Your task to perform on an android device: Open calendar and show me the second week of next month Image 0: 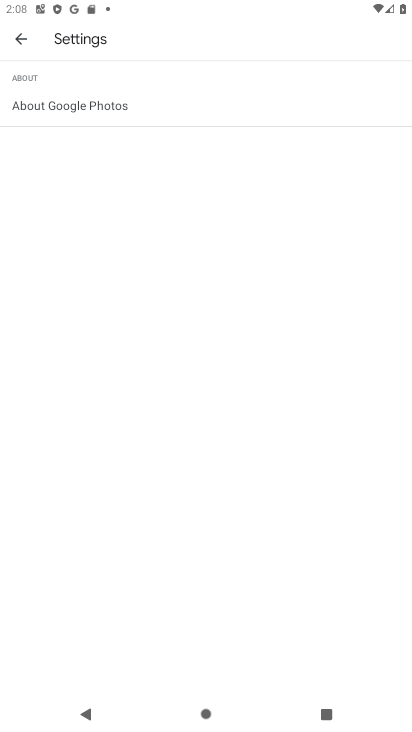
Step 0: press home button
Your task to perform on an android device: Open calendar and show me the second week of next month Image 1: 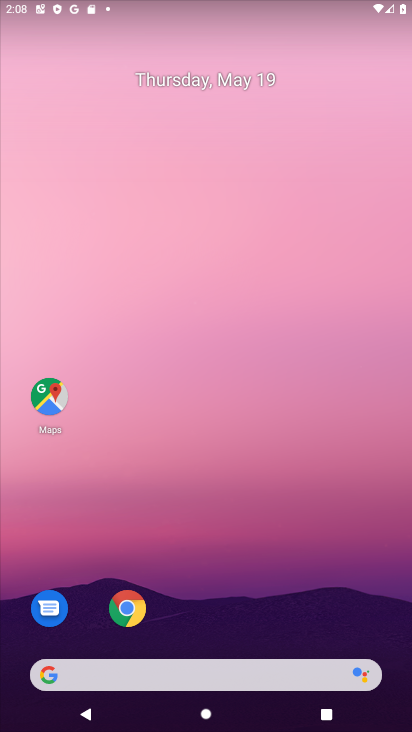
Step 1: drag from (207, 622) to (212, 271)
Your task to perform on an android device: Open calendar and show me the second week of next month Image 2: 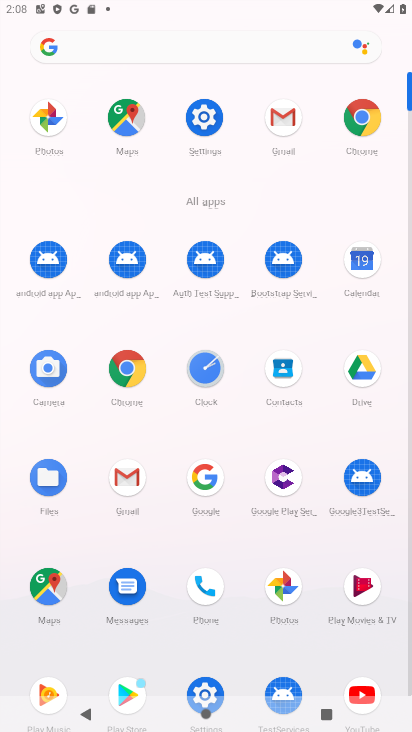
Step 2: click (362, 262)
Your task to perform on an android device: Open calendar and show me the second week of next month Image 3: 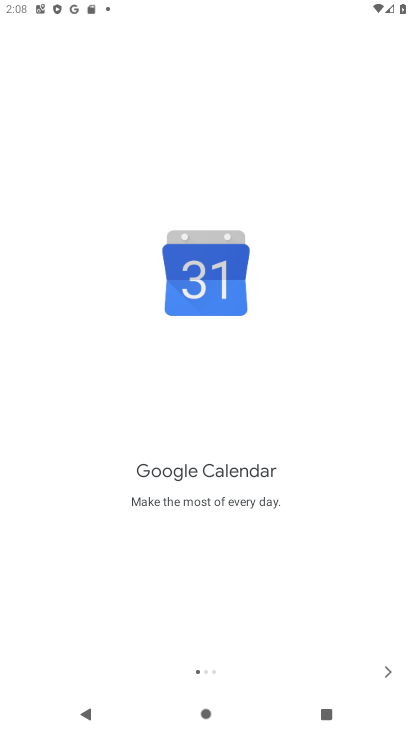
Step 3: click (378, 664)
Your task to perform on an android device: Open calendar and show me the second week of next month Image 4: 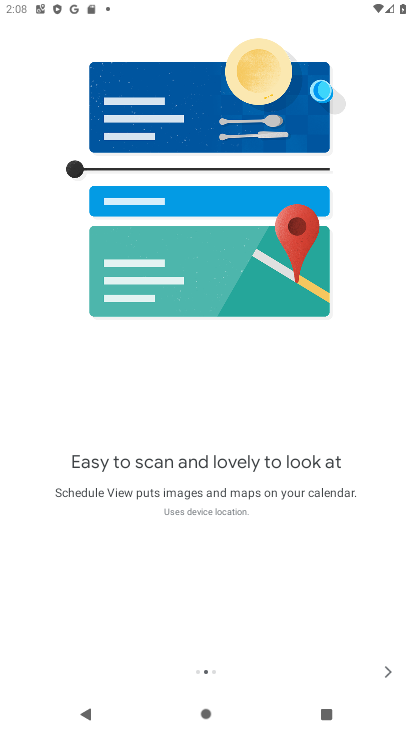
Step 4: click (378, 664)
Your task to perform on an android device: Open calendar and show me the second week of next month Image 5: 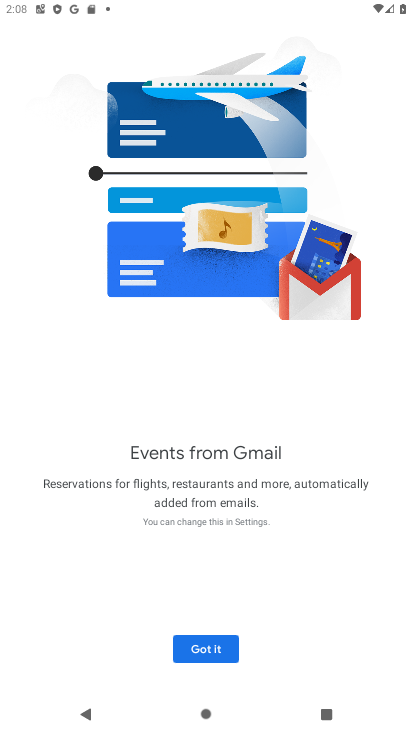
Step 5: click (204, 655)
Your task to perform on an android device: Open calendar and show me the second week of next month Image 6: 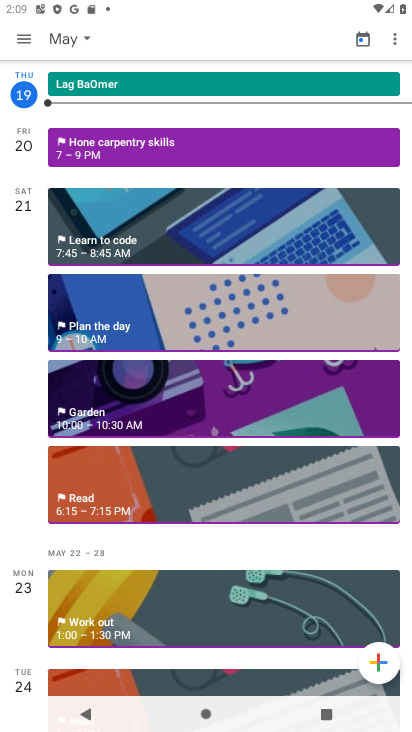
Step 6: click (69, 31)
Your task to perform on an android device: Open calendar and show me the second week of next month Image 7: 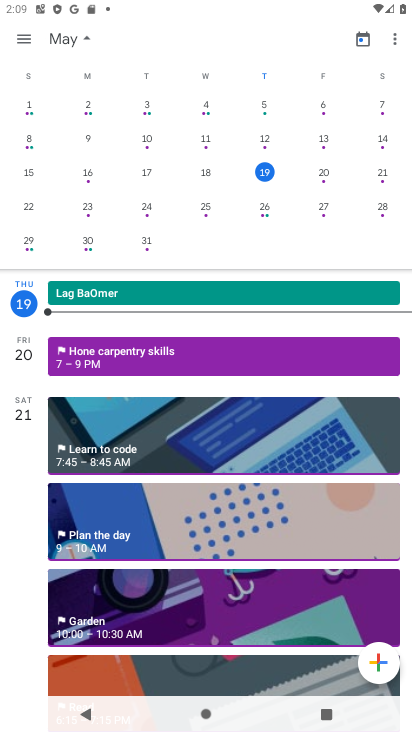
Step 7: drag from (353, 141) to (0, 109)
Your task to perform on an android device: Open calendar and show me the second week of next month Image 8: 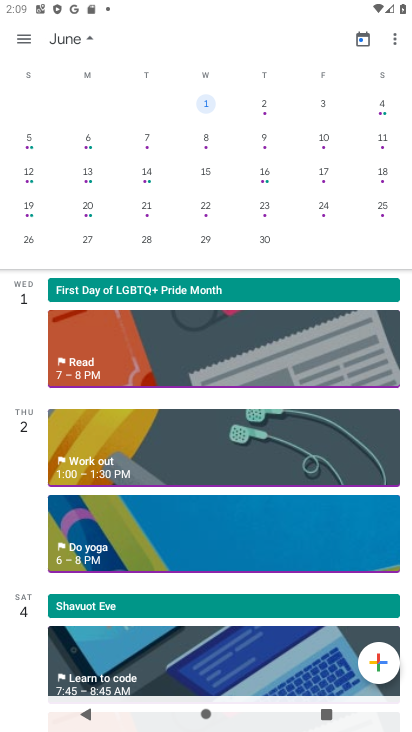
Step 8: click (141, 169)
Your task to perform on an android device: Open calendar and show me the second week of next month Image 9: 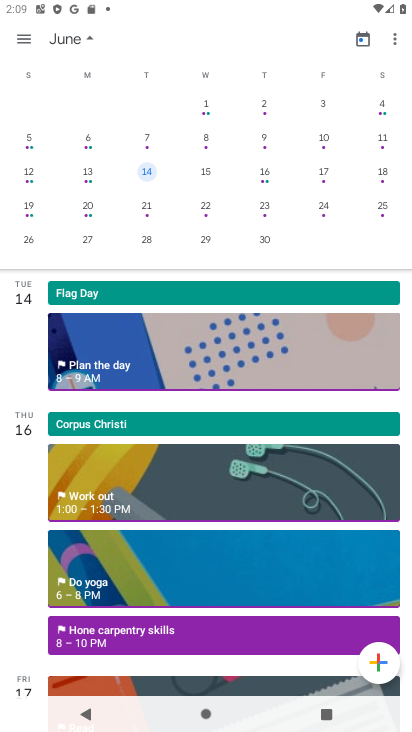
Step 9: task complete